Your task to perform on an android device: turn off location Image 0: 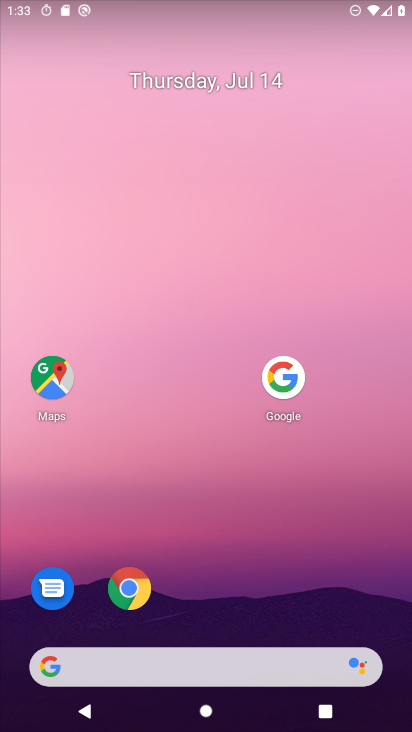
Step 0: drag from (135, 641) to (249, 86)
Your task to perform on an android device: turn off location Image 1: 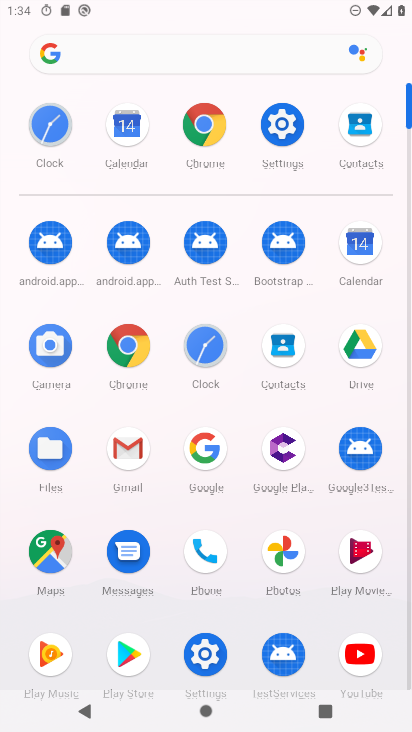
Step 1: click (207, 648)
Your task to perform on an android device: turn off location Image 2: 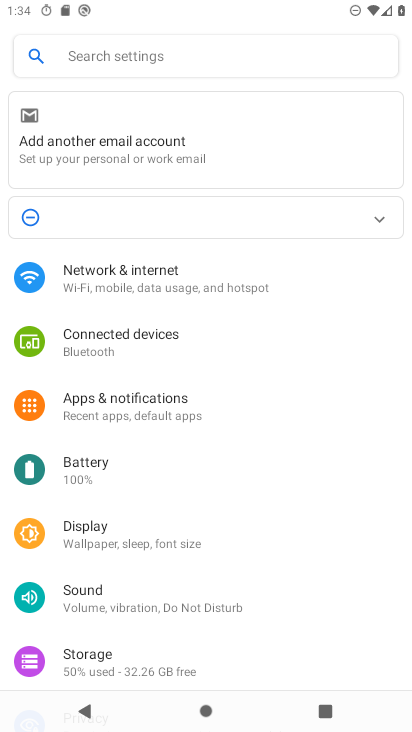
Step 2: drag from (183, 566) to (250, 210)
Your task to perform on an android device: turn off location Image 3: 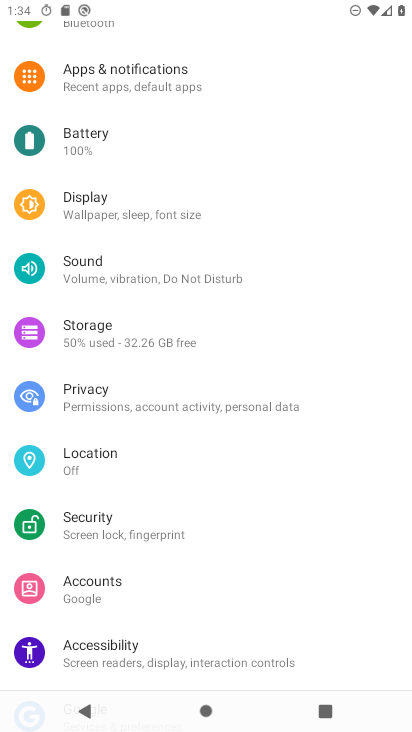
Step 3: click (99, 458)
Your task to perform on an android device: turn off location Image 4: 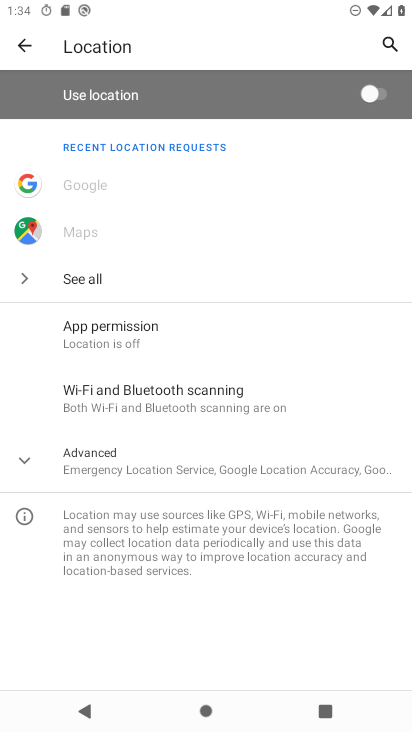
Step 4: task complete